Your task to perform on an android device: change text size in settings app Image 0: 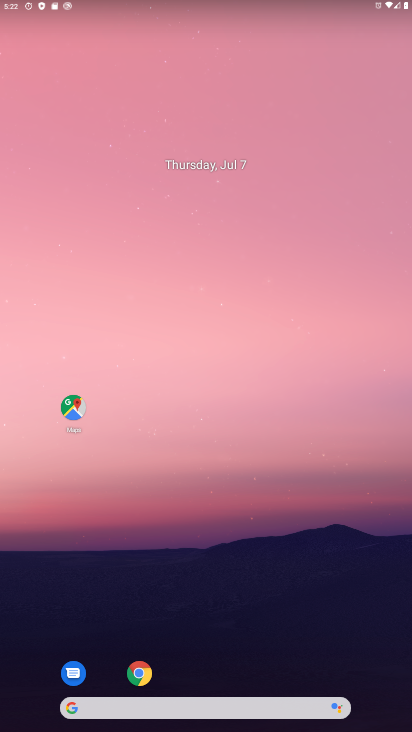
Step 0: drag from (293, 635) to (327, 29)
Your task to perform on an android device: change text size in settings app Image 1: 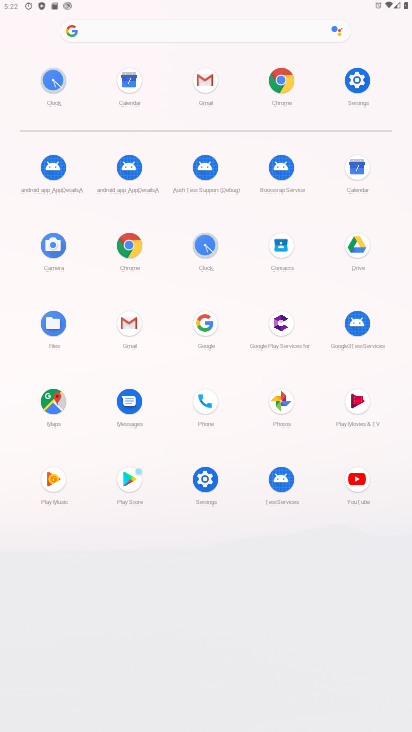
Step 1: click (359, 73)
Your task to perform on an android device: change text size in settings app Image 2: 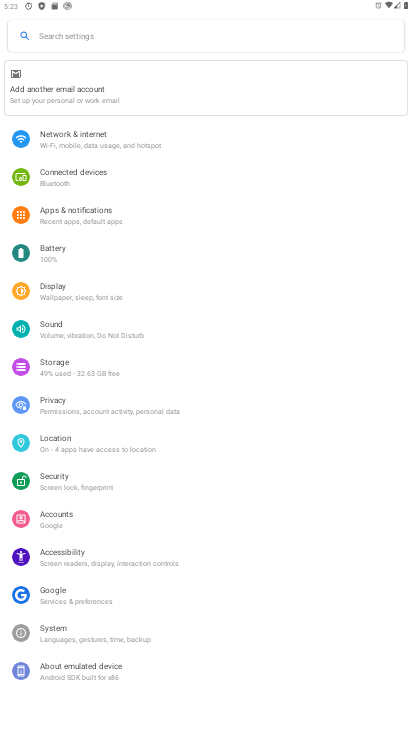
Step 2: click (116, 559)
Your task to perform on an android device: change text size in settings app Image 3: 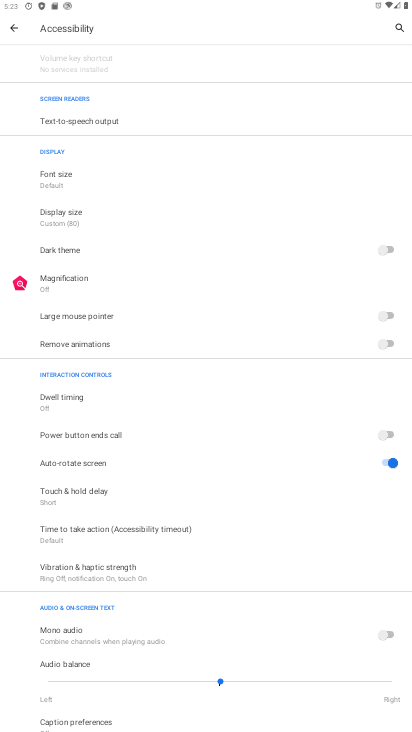
Step 3: click (76, 176)
Your task to perform on an android device: change text size in settings app Image 4: 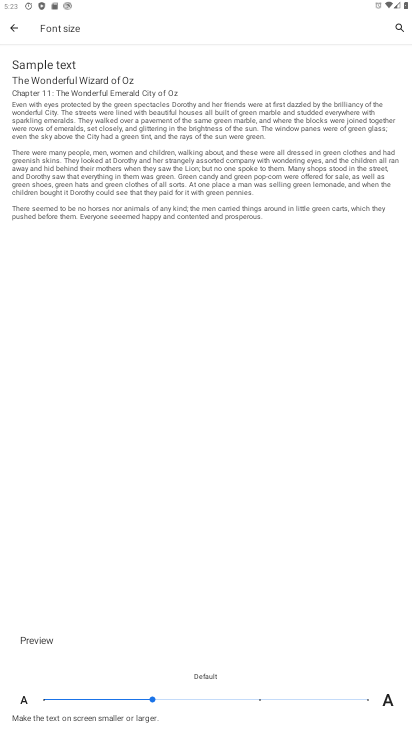
Step 4: click (243, 702)
Your task to perform on an android device: change text size in settings app Image 5: 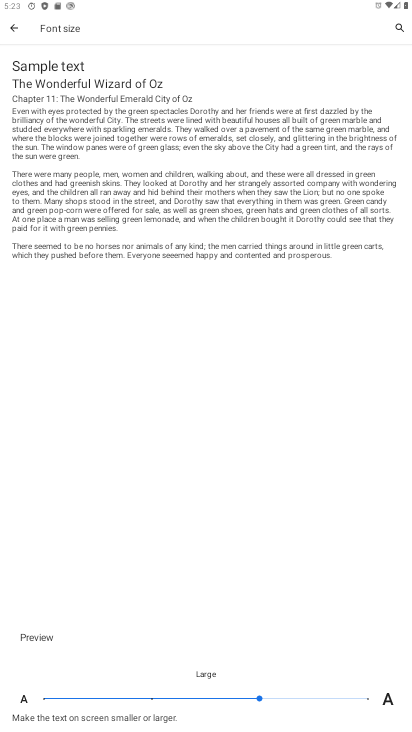
Step 5: task complete